Your task to perform on an android device: allow cookies in the chrome app Image 0: 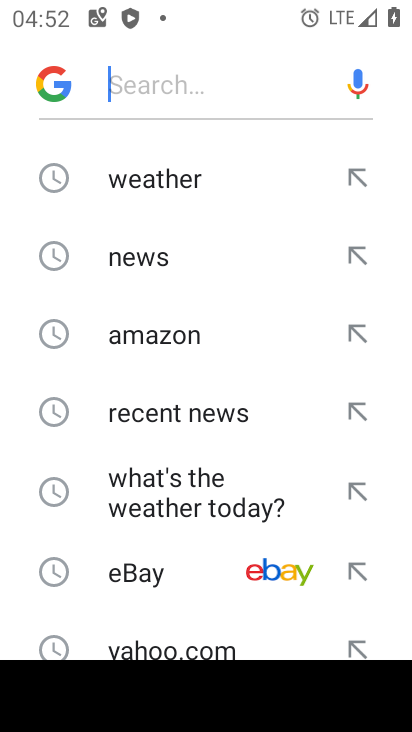
Step 0: press home button
Your task to perform on an android device: allow cookies in the chrome app Image 1: 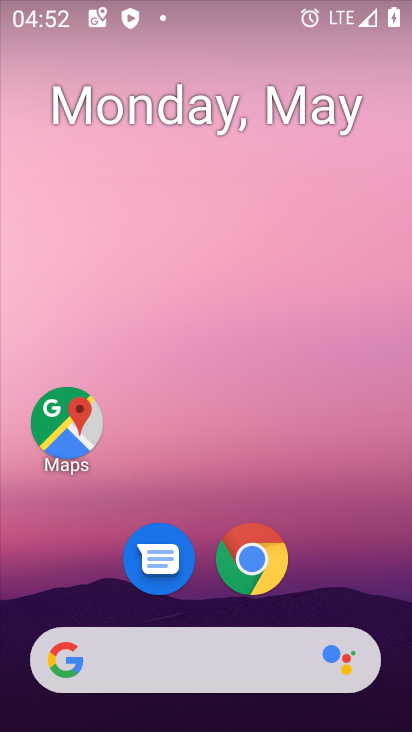
Step 1: drag from (223, 655) to (324, 75)
Your task to perform on an android device: allow cookies in the chrome app Image 2: 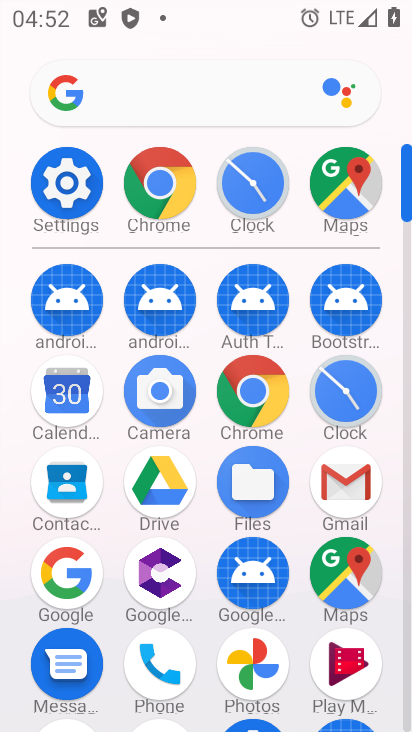
Step 2: click (255, 379)
Your task to perform on an android device: allow cookies in the chrome app Image 3: 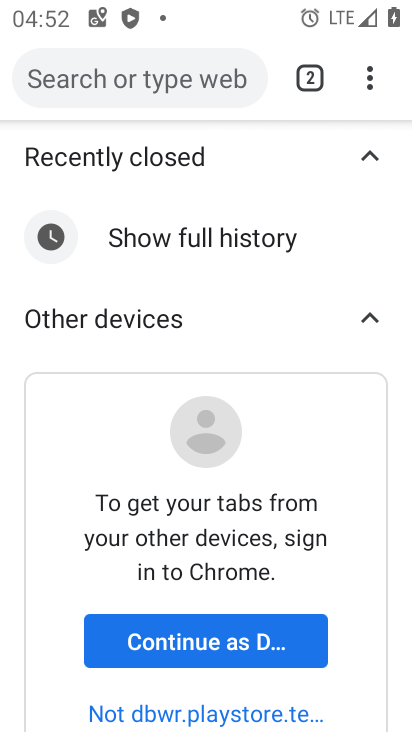
Step 3: click (377, 78)
Your task to perform on an android device: allow cookies in the chrome app Image 4: 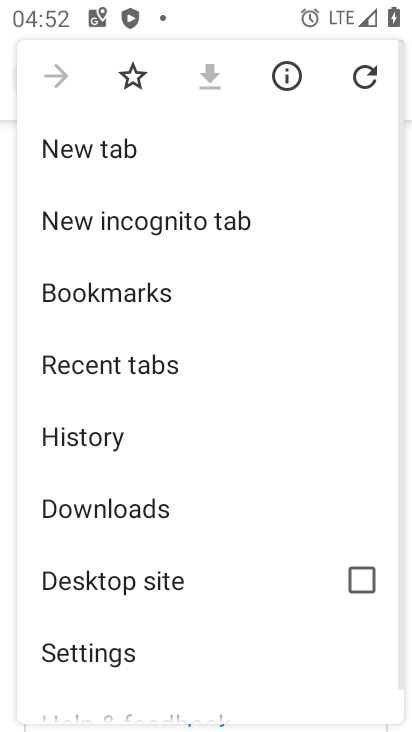
Step 4: click (91, 663)
Your task to perform on an android device: allow cookies in the chrome app Image 5: 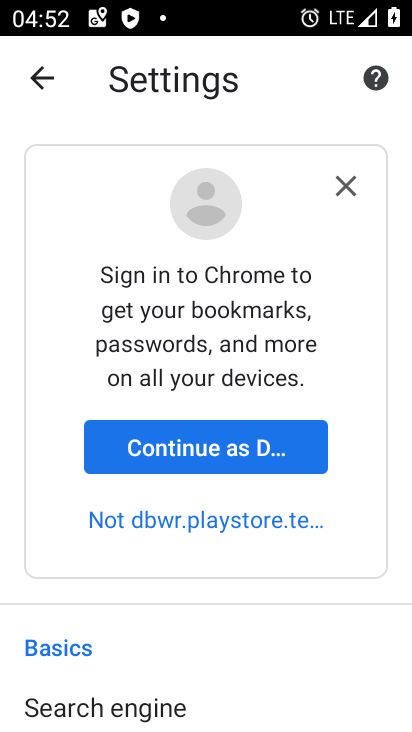
Step 5: drag from (216, 684) to (280, 42)
Your task to perform on an android device: allow cookies in the chrome app Image 6: 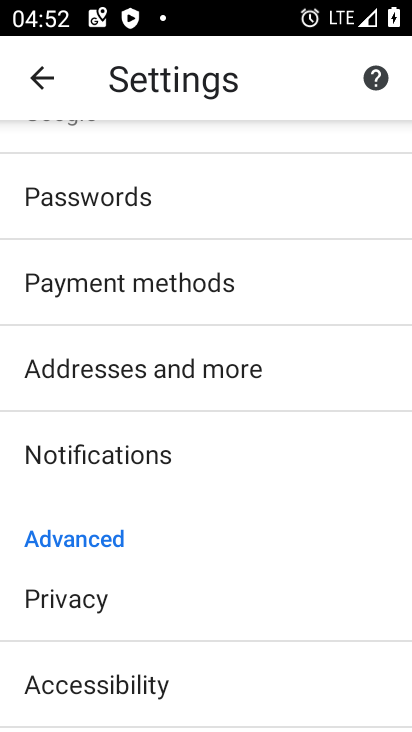
Step 6: drag from (159, 730) to (182, 297)
Your task to perform on an android device: allow cookies in the chrome app Image 7: 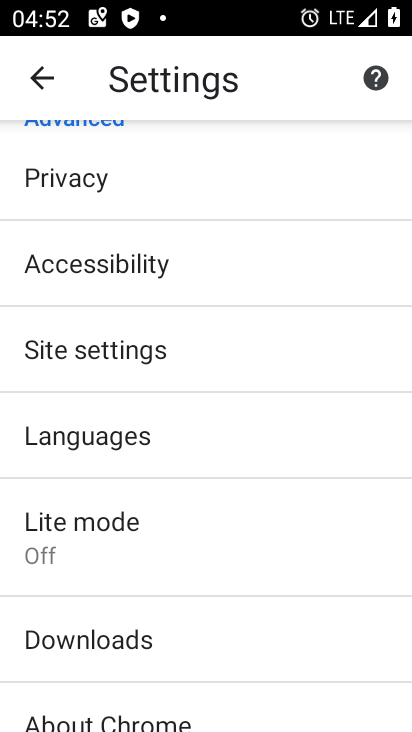
Step 7: click (173, 369)
Your task to perform on an android device: allow cookies in the chrome app Image 8: 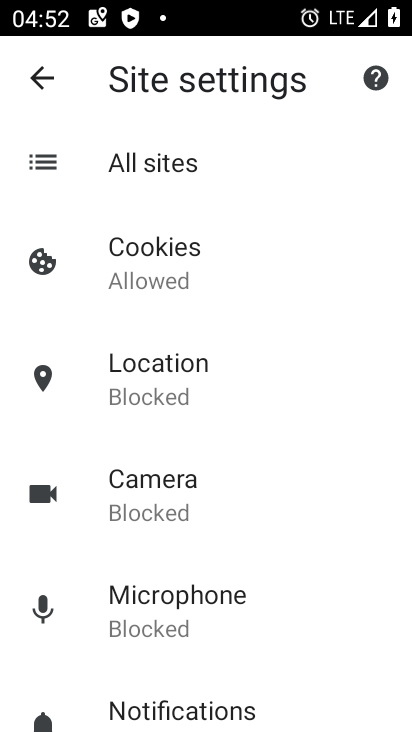
Step 8: click (231, 257)
Your task to perform on an android device: allow cookies in the chrome app Image 9: 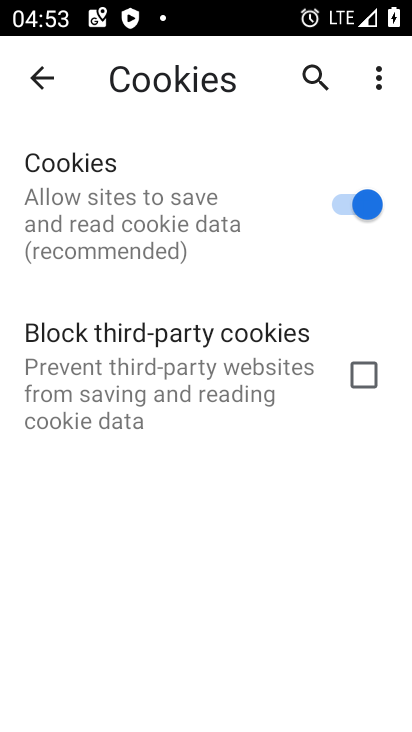
Step 9: task complete